Your task to perform on an android device: check google app version Image 0: 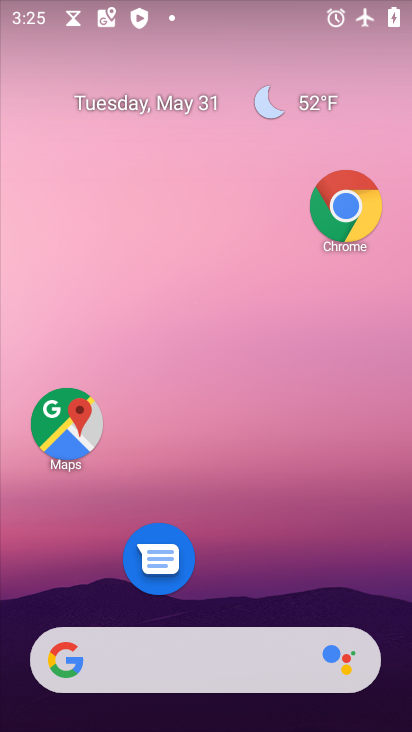
Step 0: press home button
Your task to perform on an android device: check google app version Image 1: 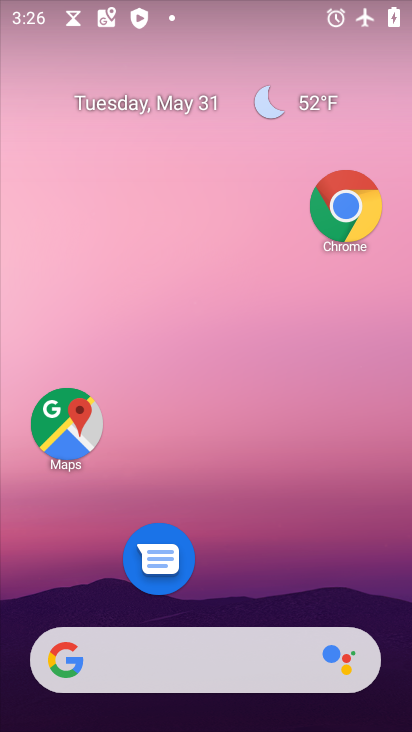
Step 1: drag from (88, 363) to (208, 95)
Your task to perform on an android device: check google app version Image 2: 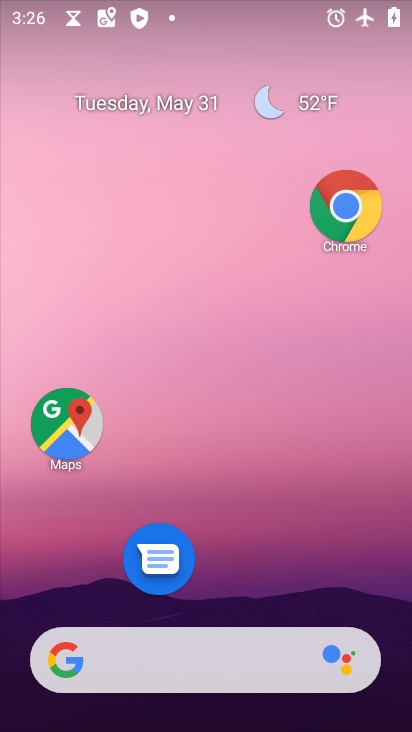
Step 2: drag from (61, 425) to (197, 88)
Your task to perform on an android device: check google app version Image 3: 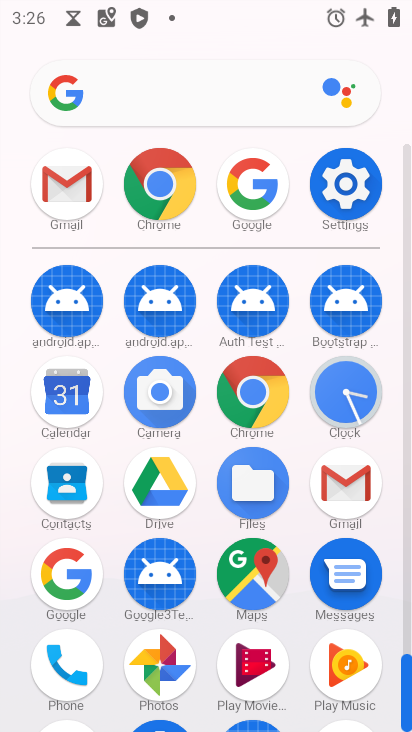
Step 3: click (147, 584)
Your task to perform on an android device: check google app version Image 4: 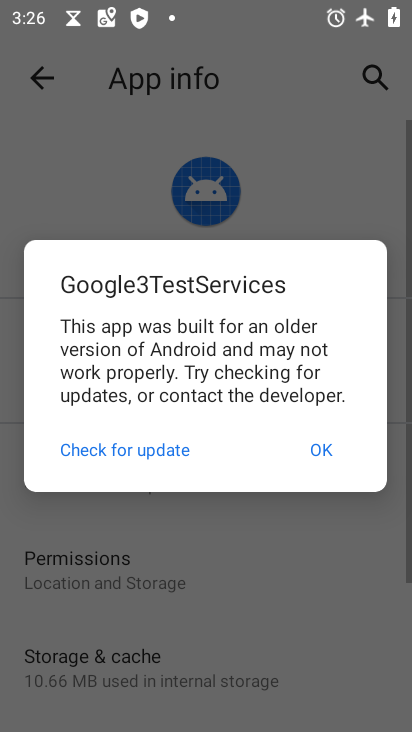
Step 4: click (327, 443)
Your task to perform on an android device: check google app version Image 5: 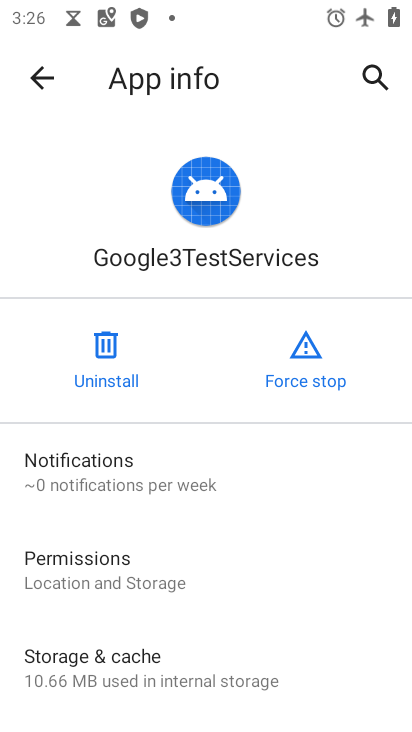
Step 5: drag from (77, 588) to (274, 212)
Your task to perform on an android device: check google app version Image 6: 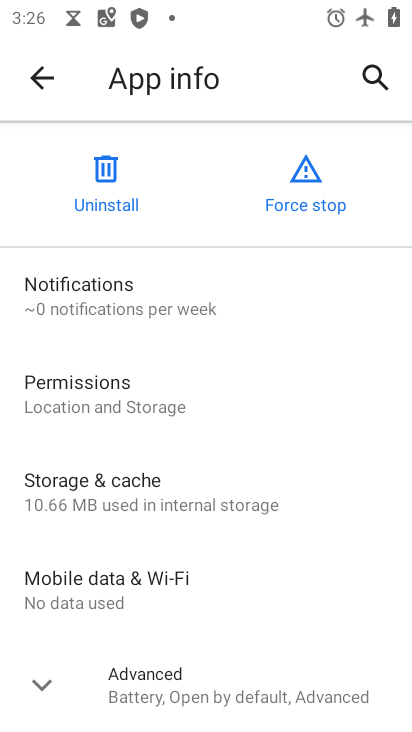
Step 6: drag from (76, 573) to (295, 162)
Your task to perform on an android device: check google app version Image 7: 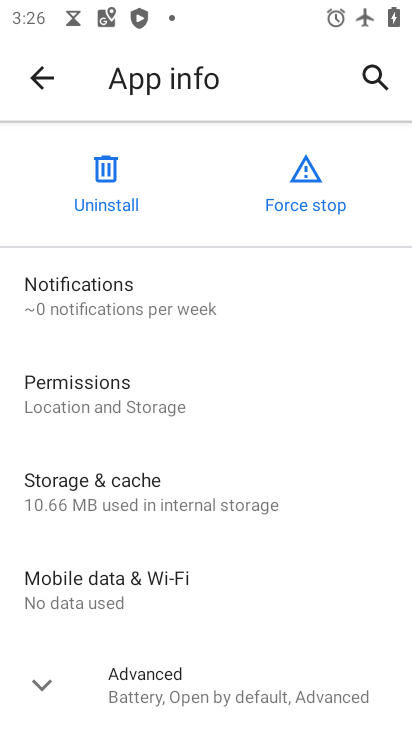
Step 7: drag from (3, 729) to (252, 324)
Your task to perform on an android device: check google app version Image 8: 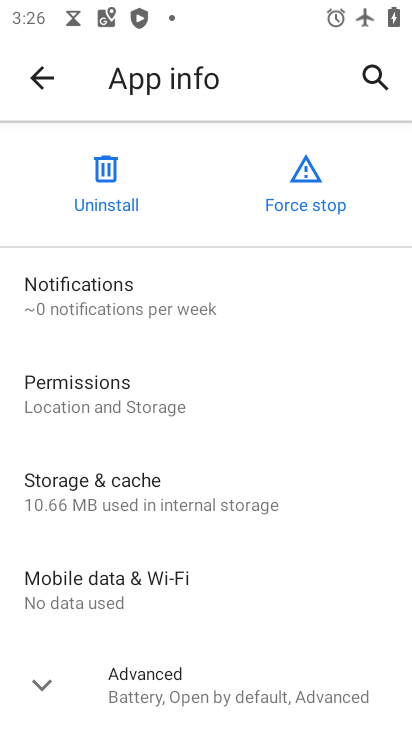
Step 8: click (48, 679)
Your task to perform on an android device: check google app version Image 9: 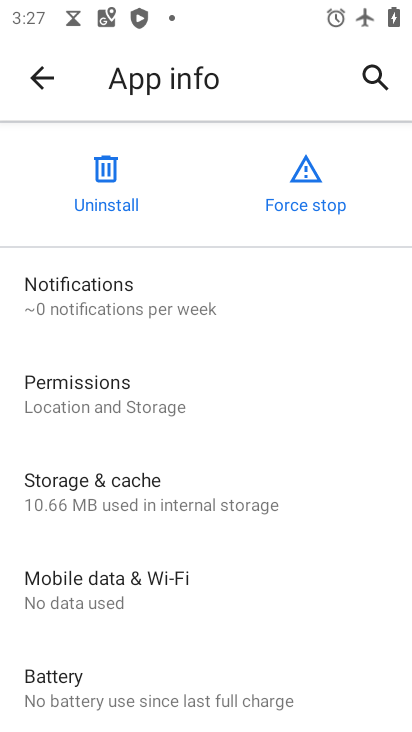
Step 9: task complete